Your task to perform on an android device: Open CNN.com Image 0: 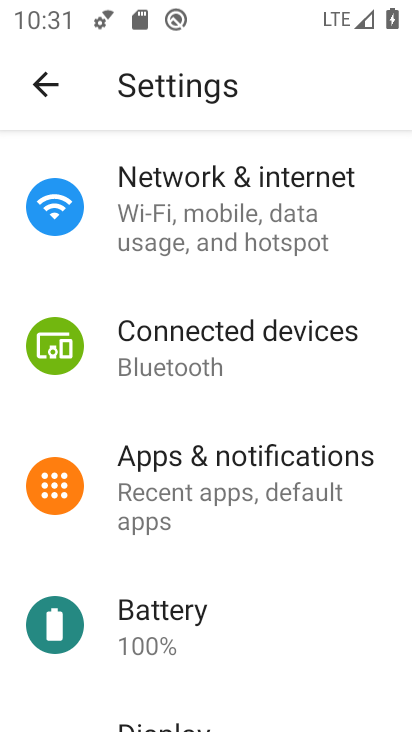
Step 0: press home button
Your task to perform on an android device: Open CNN.com Image 1: 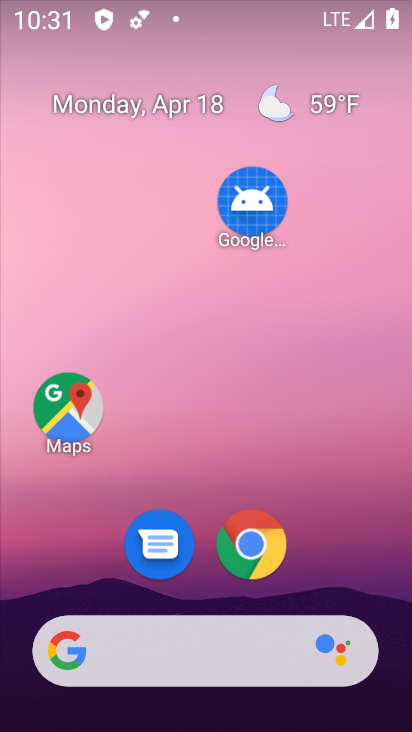
Step 1: drag from (308, 231) to (308, 141)
Your task to perform on an android device: Open CNN.com Image 2: 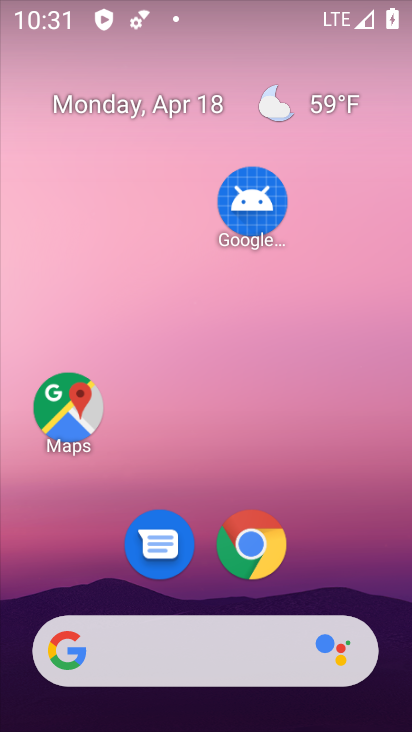
Step 2: drag from (317, 477) to (315, 143)
Your task to perform on an android device: Open CNN.com Image 3: 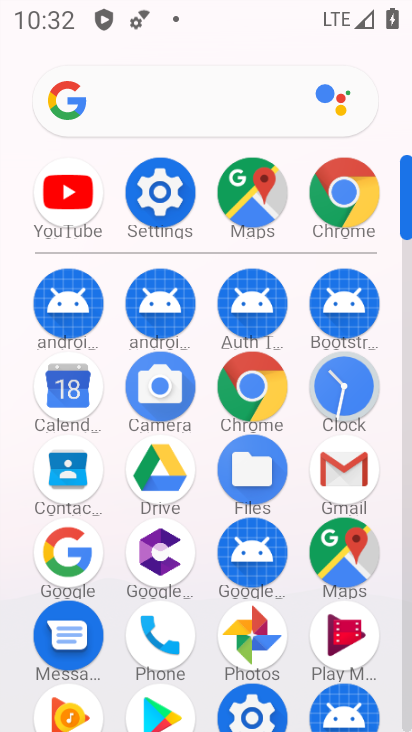
Step 3: click (249, 382)
Your task to perform on an android device: Open CNN.com Image 4: 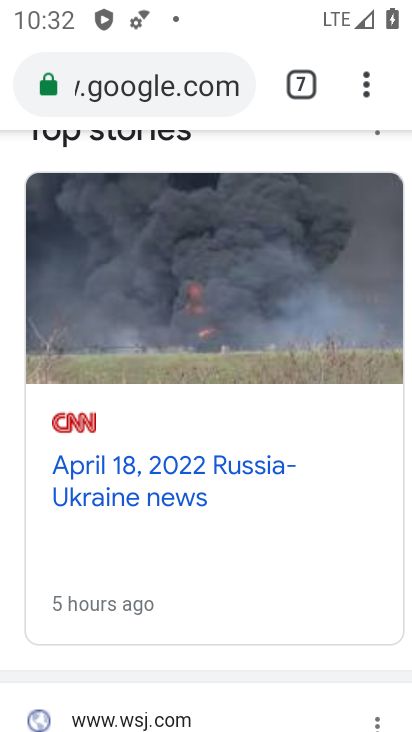
Step 4: click (366, 84)
Your task to perform on an android device: Open CNN.com Image 5: 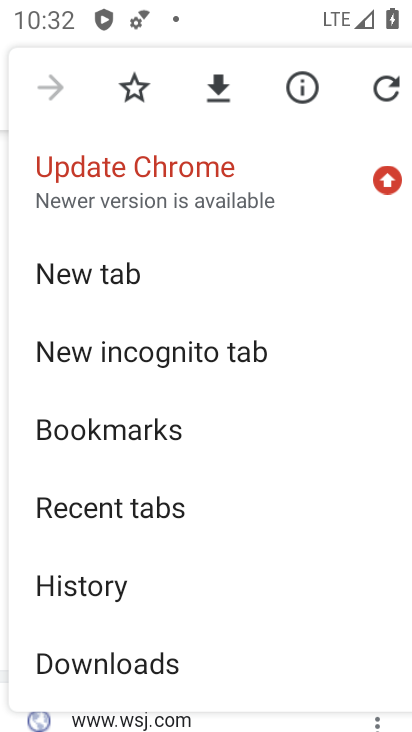
Step 5: click (164, 275)
Your task to perform on an android device: Open CNN.com Image 6: 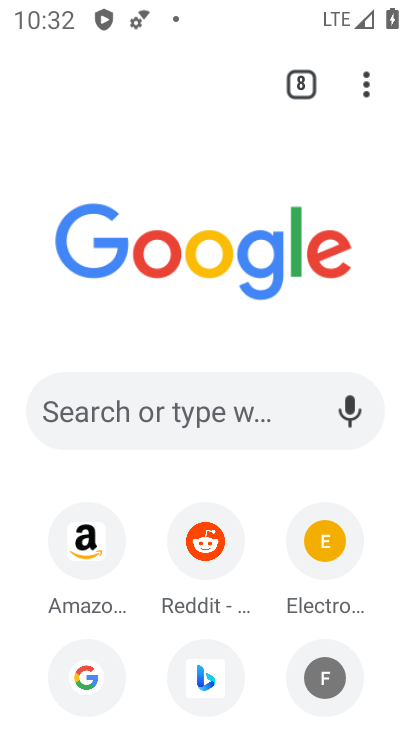
Step 6: click (93, 390)
Your task to perform on an android device: Open CNN.com Image 7: 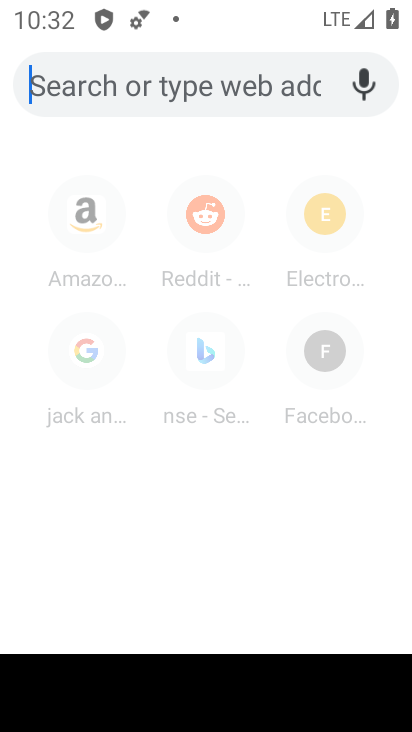
Step 7: type "CNN.com"
Your task to perform on an android device: Open CNN.com Image 8: 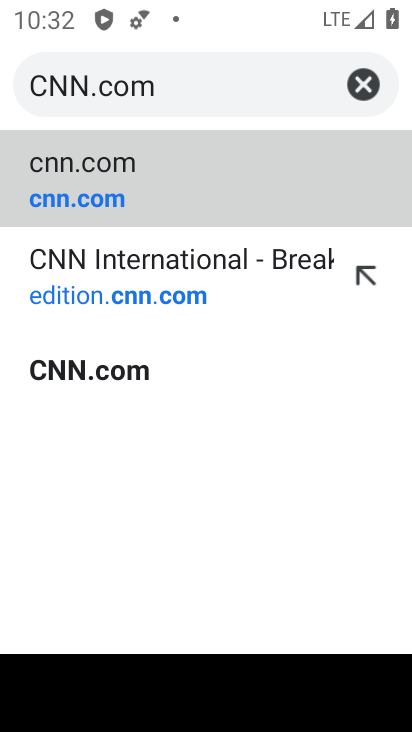
Step 8: click (148, 352)
Your task to perform on an android device: Open CNN.com Image 9: 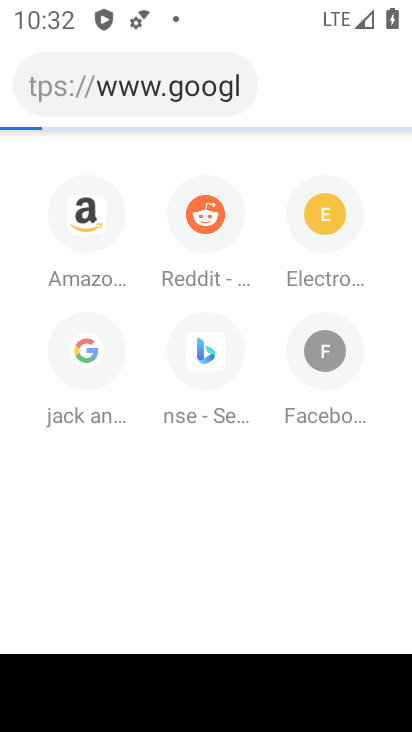
Step 9: click (173, 279)
Your task to perform on an android device: Open CNN.com Image 10: 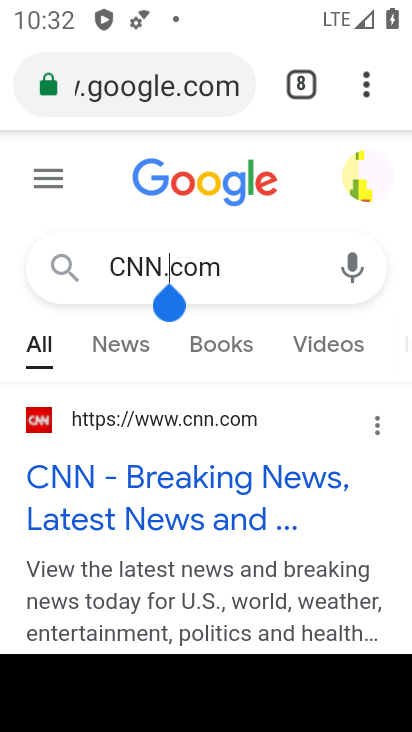
Step 10: drag from (275, 506) to (284, 265)
Your task to perform on an android device: Open CNN.com Image 11: 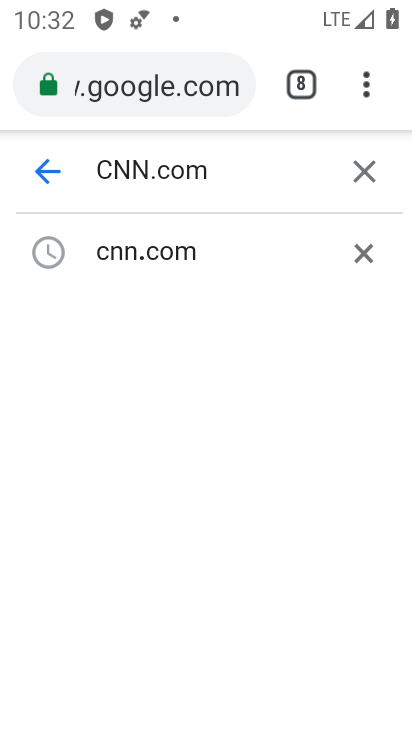
Step 11: click (216, 181)
Your task to perform on an android device: Open CNN.com Image 12: 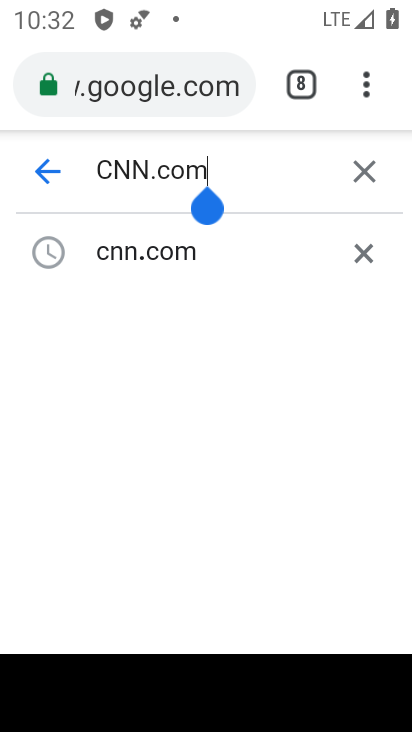
Step 12: click (70, 172)
Your task to perform on an android device: Open CNN.com Image 13: 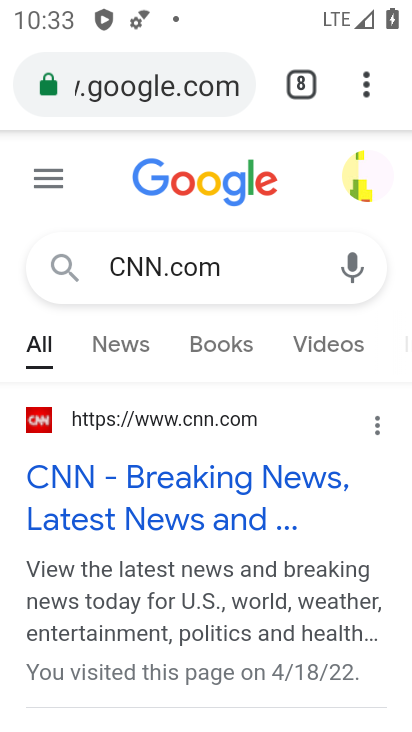
Step 13: click (215, 493)
Your task to perform on an android device: Open CNN.com Image 14: 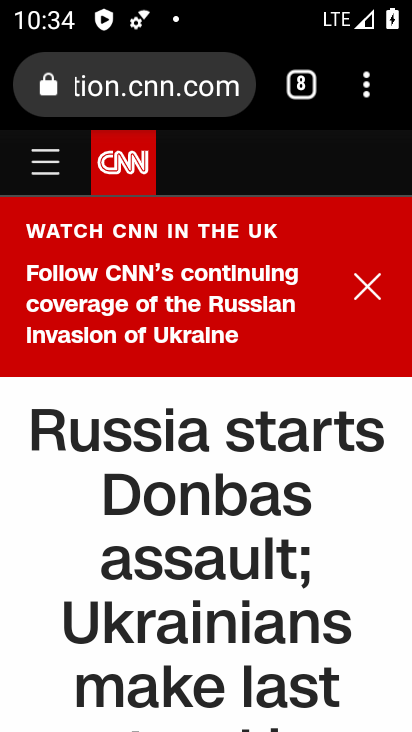
Step 14: task complete